Your task to perform on an android device: turn off location Image 0: 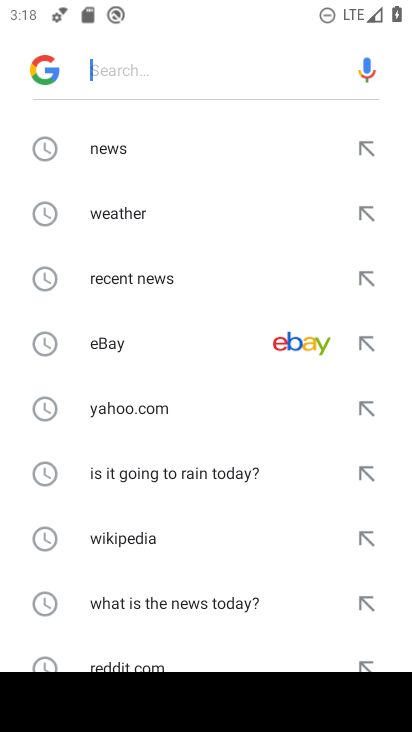
Step 0: press home button
Your task to perform on an android device: turn off location Image 1: 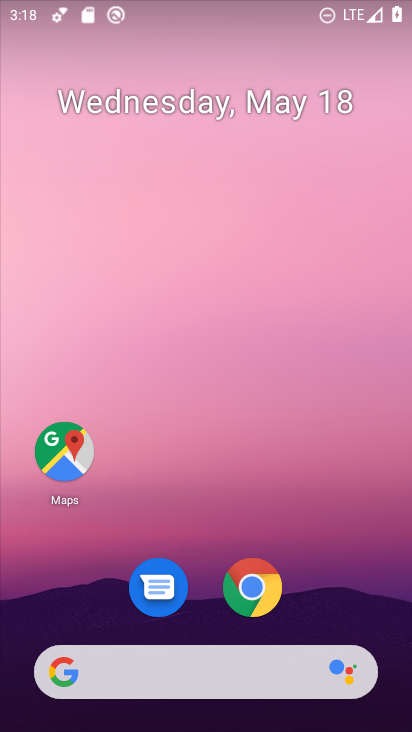
Step 1: drag from (196, 649) to (208, 101)
Your task to perform on an android device: turn off location Image 2: 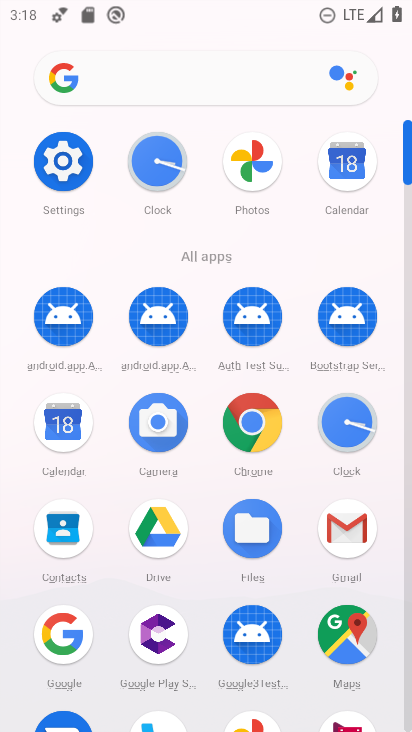
Step 2: click (91, 166)
Your task to perform on an android device: turn off location Image 3: 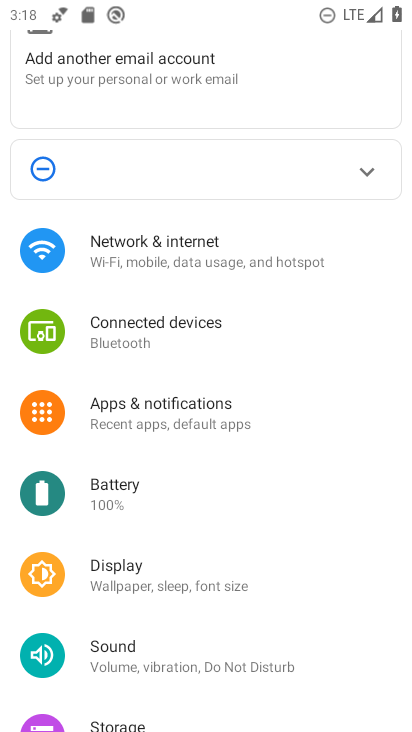
Step 3: drag from (172, 585) to (165, 125)
Your task to perform on an android device: turn off location Image 4: 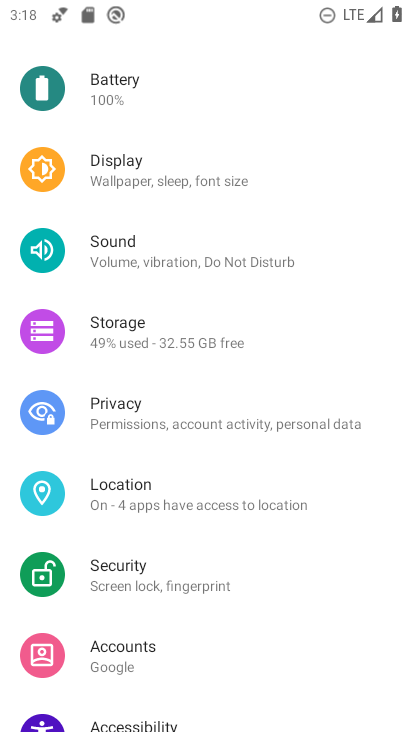
Step 4: click (139, 499)
Your task to perform on an android device: turn off location Image 5: 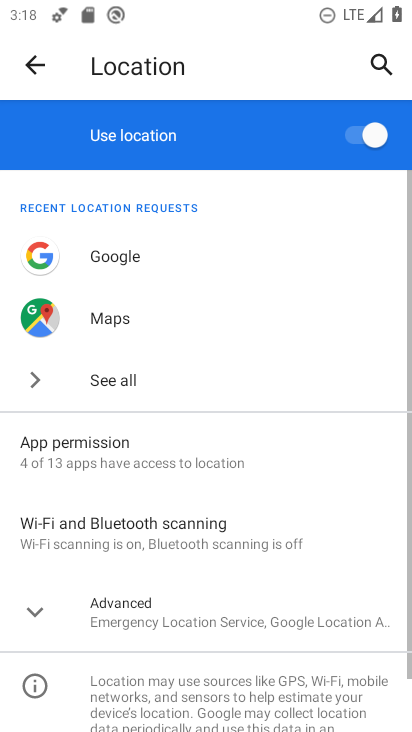
Step 5: click (372, 129)
Your task to perform on an android device: turn off location Image 6: 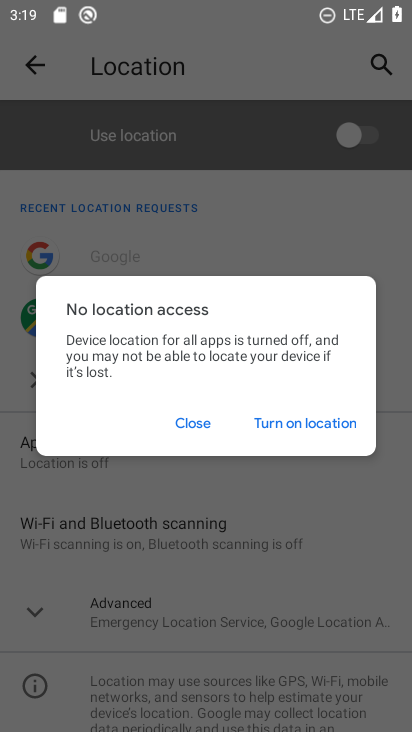
Step 6: click (193, 423)
Your task to perform on an android device: turn off location Image 7: 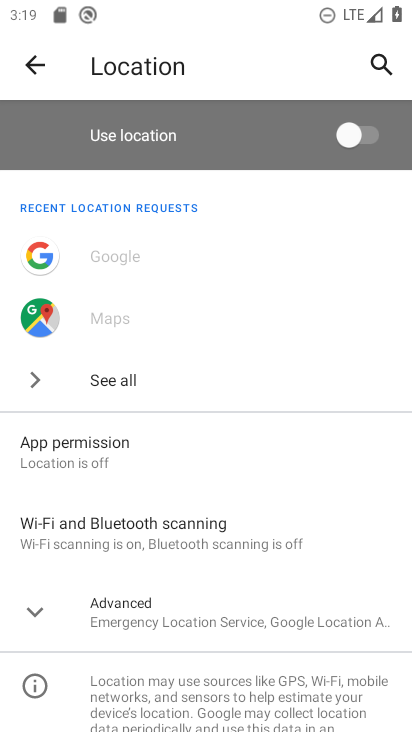
Step 7: task complete